Your task to perform on an android device: View the shopping cart on amazon. Search for "energizer triple a" on amazon, select the first entry, add it to the cart, then select checkout. Image 0: 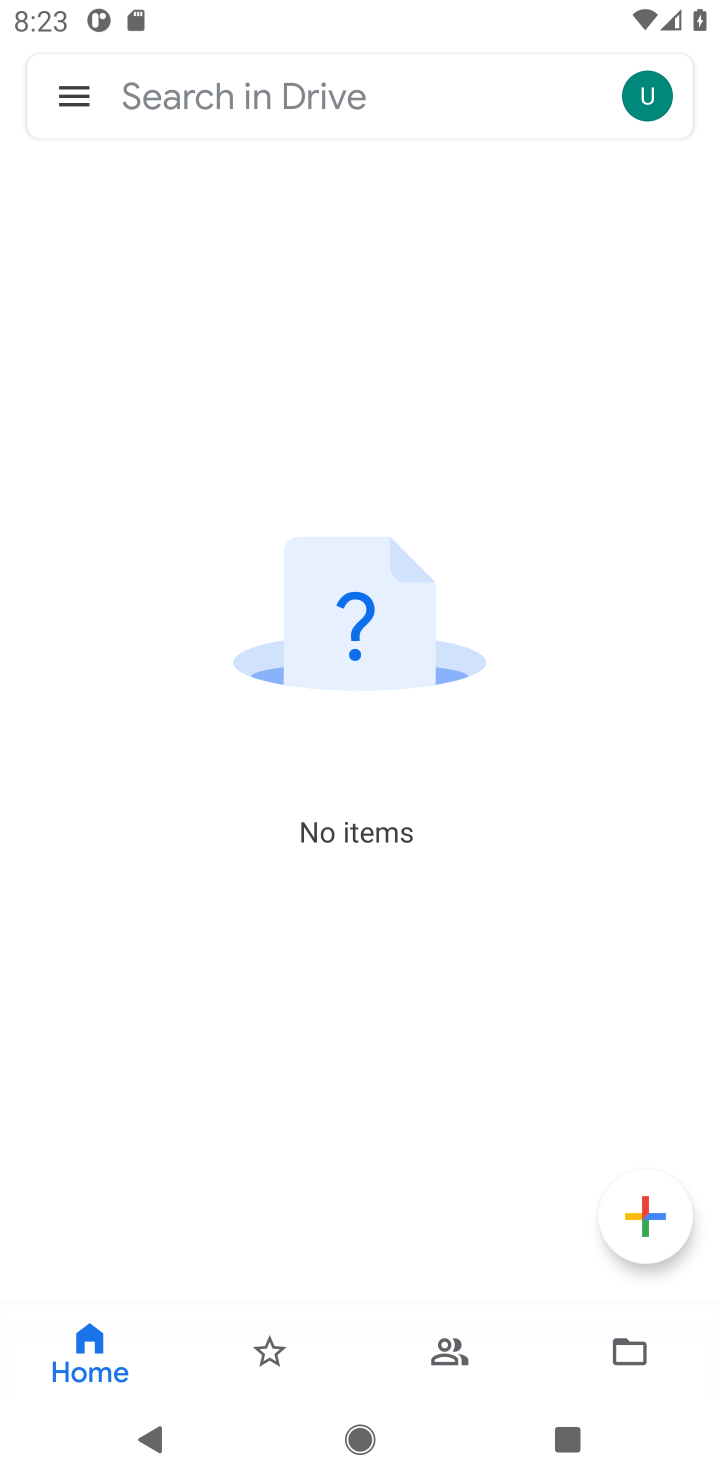
Step 0: press home button
Your task to perform on an android device: View the shopping cart on amazon. Search for "energizer triple a" on amazon, select the first entry, add it to the cart, then select checkout. Image 1: 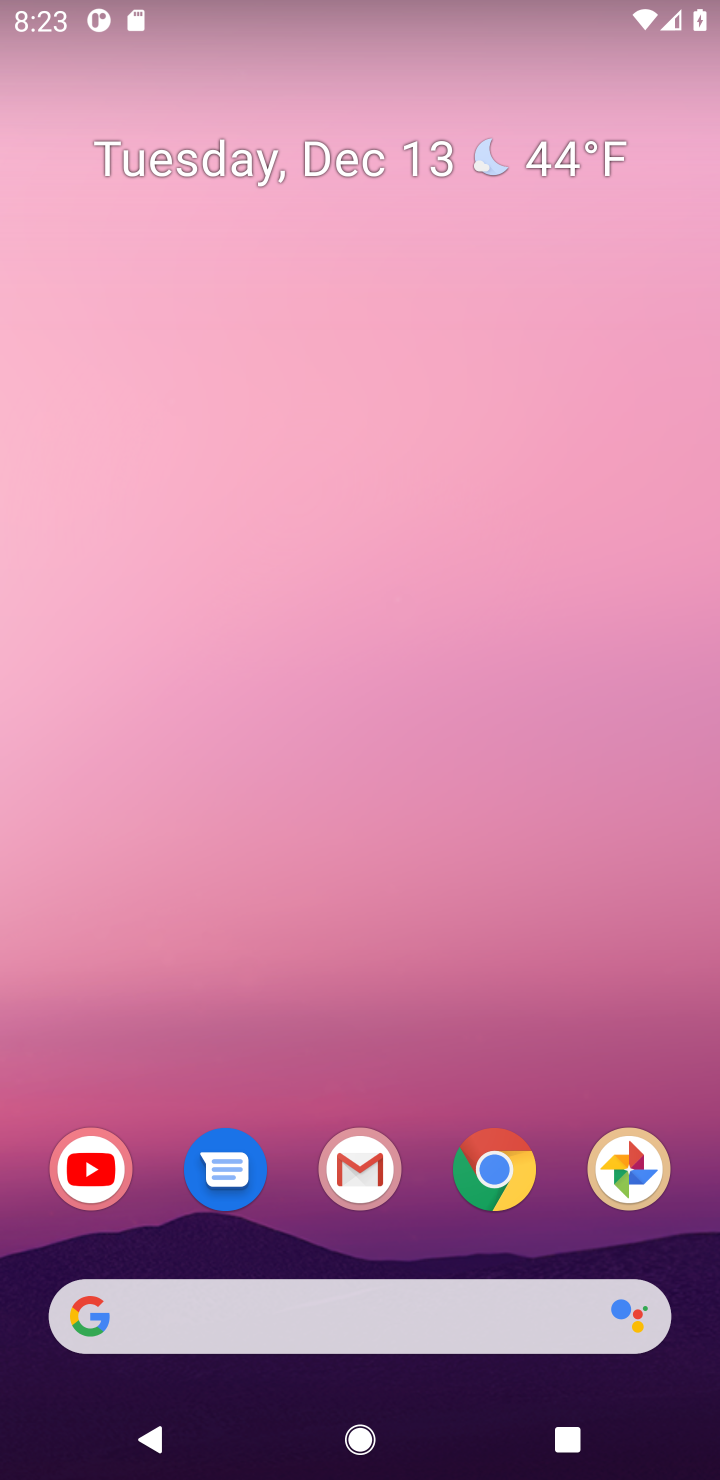
Step 1: click (507, 1163)
Your task to perform on an android device: View the shopping cart on amazon. Search for "energizer triple a" on amazon, select the first entry, add it to the cart, then select checkout. Image 2: 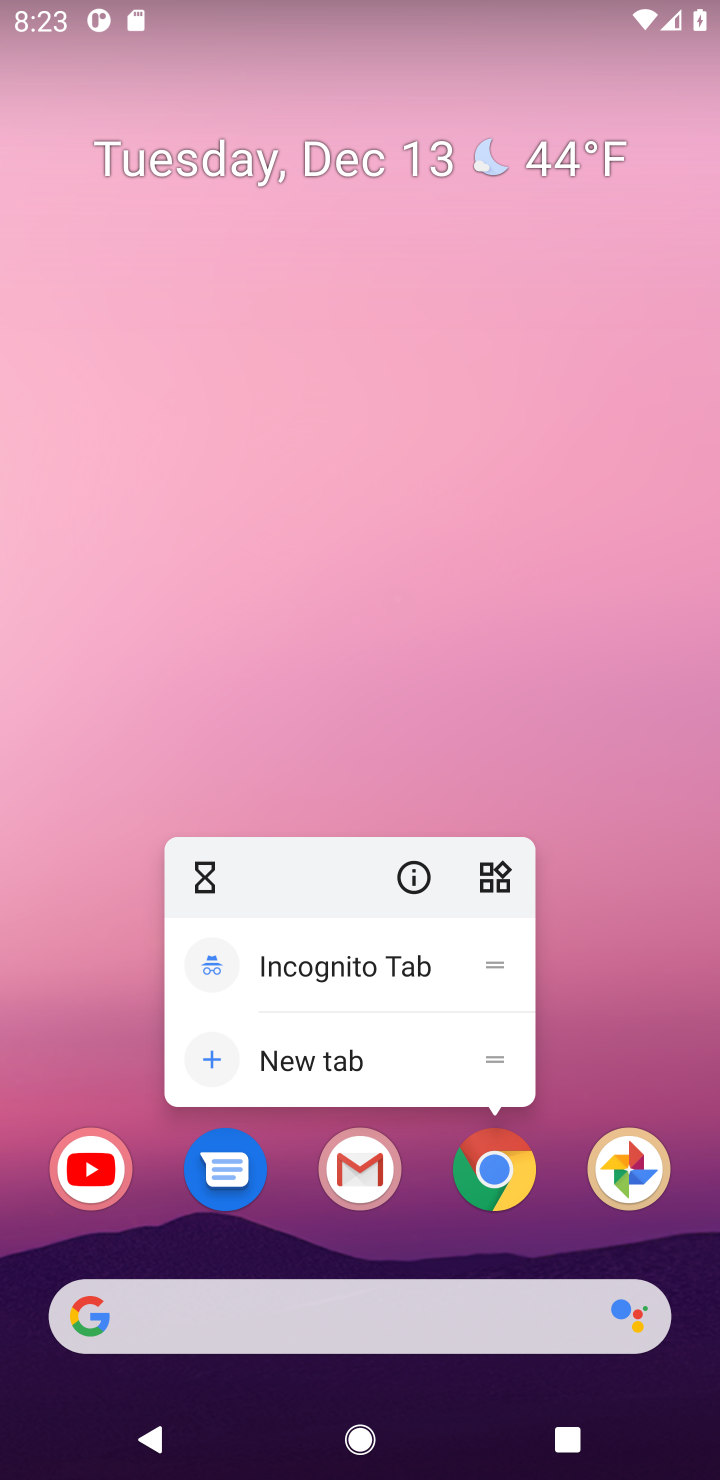
Step 2: click (507, 1163)
Your task to perform on an android device: View the shopping cart on amazon. Search for "energizer triple a" on amazon, select the first entry, add it to the cart, then select checkout. Image 3: 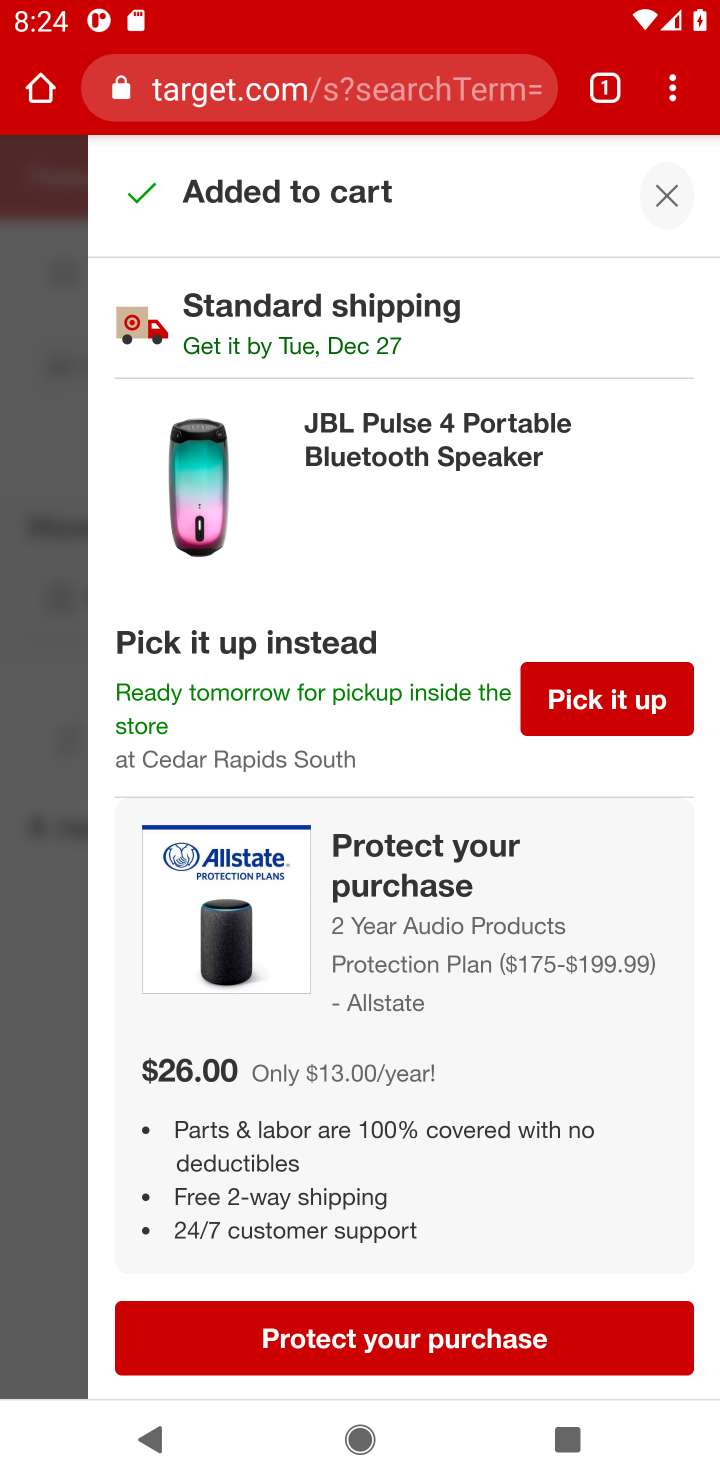
Step 3: task complete